Your task to perform on an android device: Go to Yahoo.com Image 0: 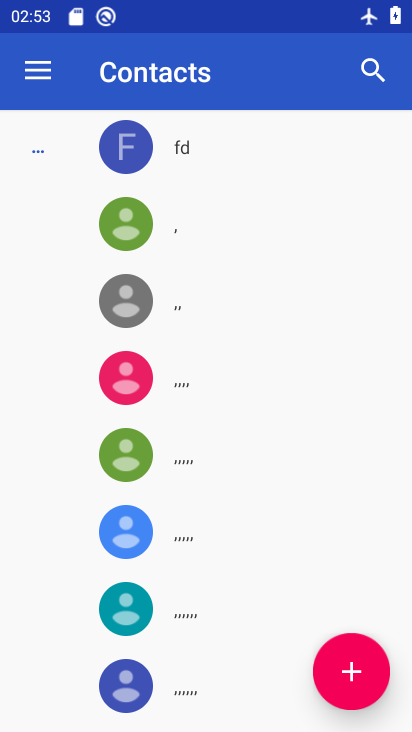
Step 0: press home button
Your task to perform on an android device: Go to Yahoo.com Image 1: 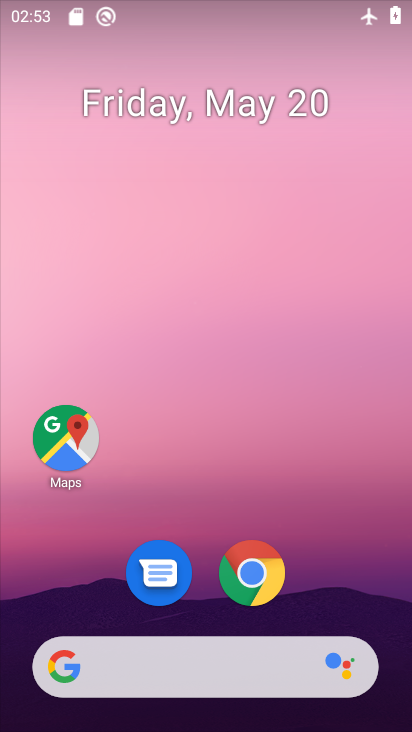
Step 1: click (255, 562)
Your task to perform on an android device: Go to Yahoo.com Image 2: 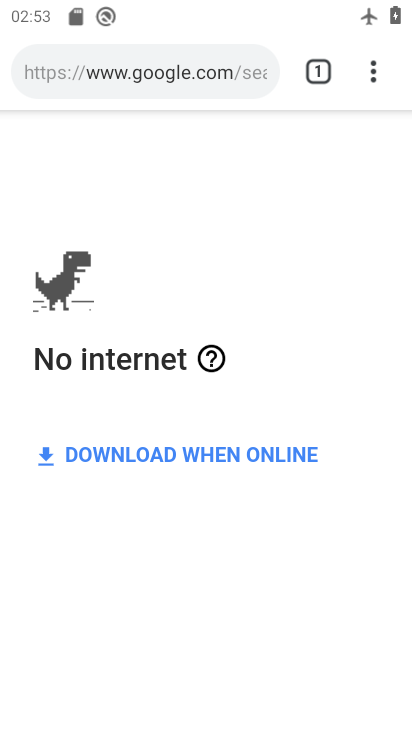
Step 2: click (308, 70)
Your task to perform on an android device: Go to Yahoo.com Image 3: 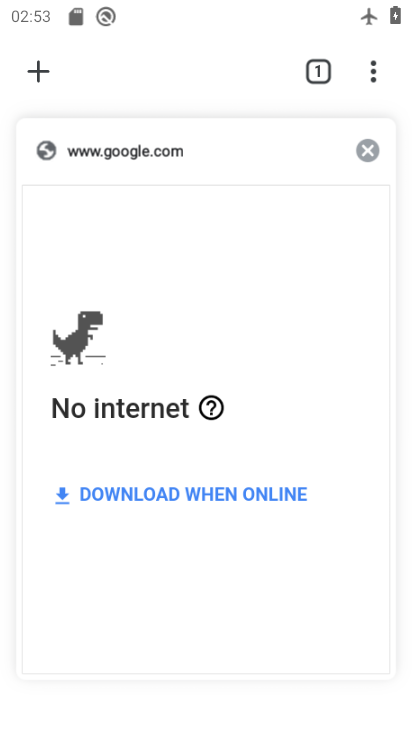
Step 3: click (28, 74)
Your task to perform on an android device: Go to Yahoo.com Image 4: 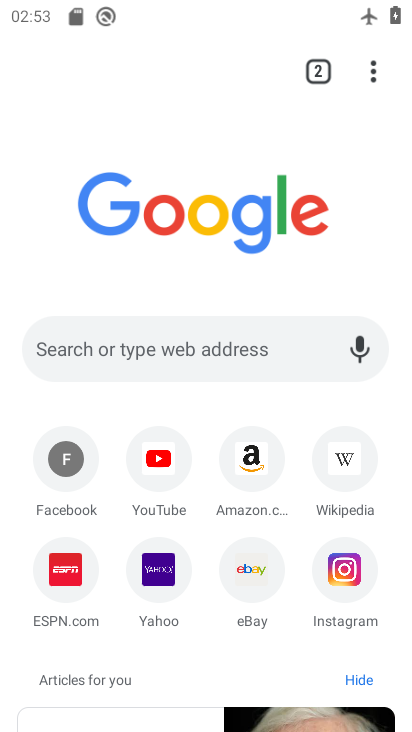
Step 4: click (165, 585)
Your task to perform on an android device: Go to Yahoo.com Image 5: 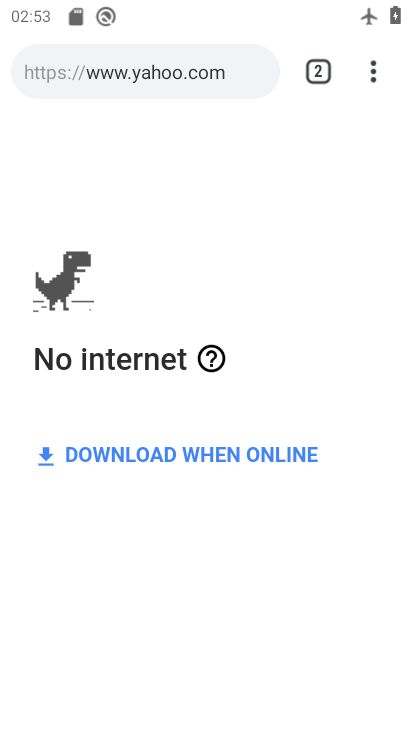
Step 5: task complete